Your task to perform on an android device: Open accessibility settings Image 0: 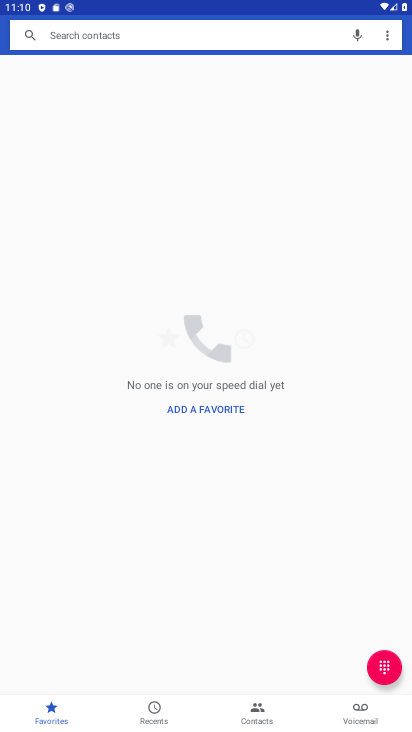
Step 0: press home button
Your task to perform on an android device: Open accessibility settings Image 1: 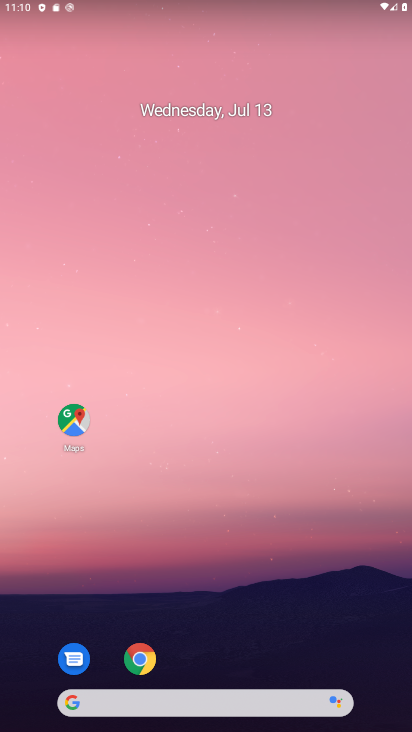
Step 1: drag from (272, 617) to (240, 110)
Your task to perform on an android device: Open accessibility settings Image 2: 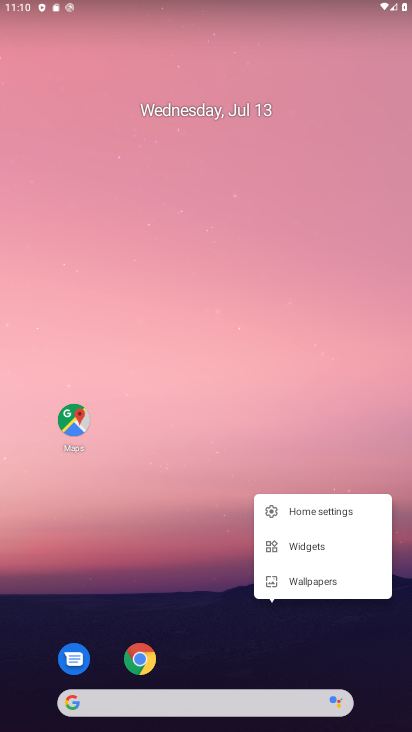
Step 2: drag from (240, 662) to (173, 243)
Your task to perform on an android device: Open accessibility settings Image 3: 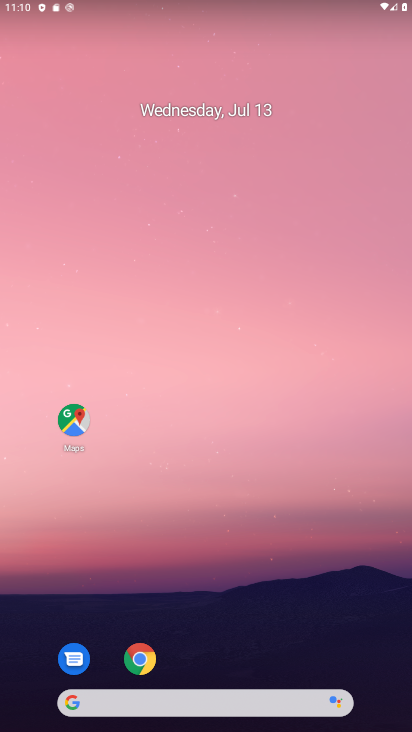
Step 3: drag from (398, 698) to (288, 48)
Your task to perform on an android device: Open accessibility settings Image 4: 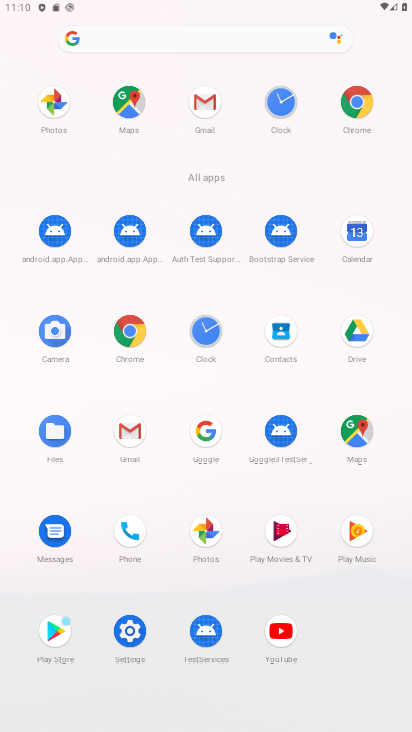
Step 4: click (132, 630)
Your task to perform on an android device: Open accessibility settings Image 5: 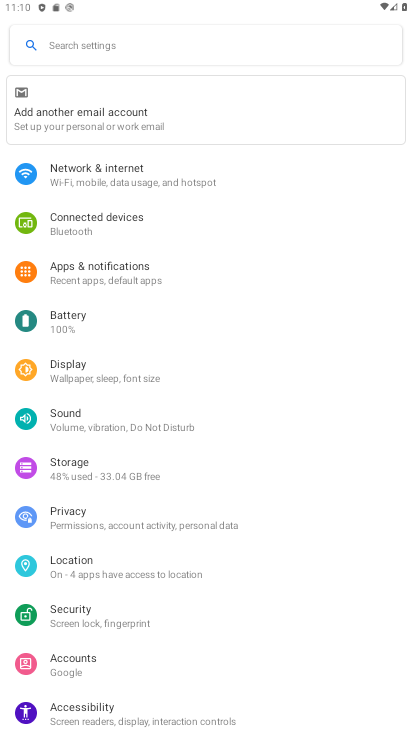
Step 5: click (133, 710)
Your task to perform on an android device: Open accessibility settings Image 6: 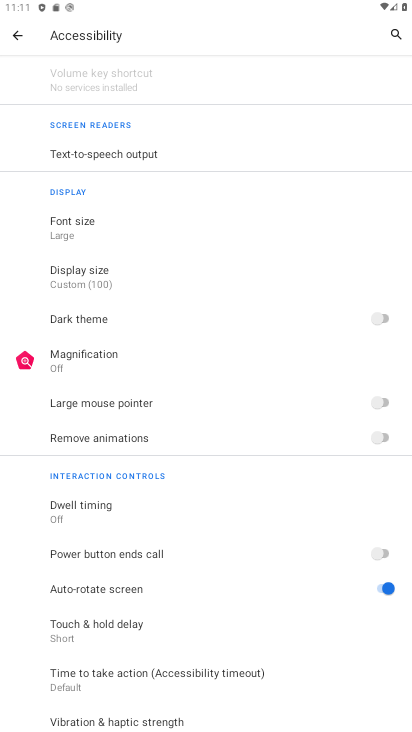
Step 6: task complete